Your task to perform on an android device: change the clock display to analog Image 0: 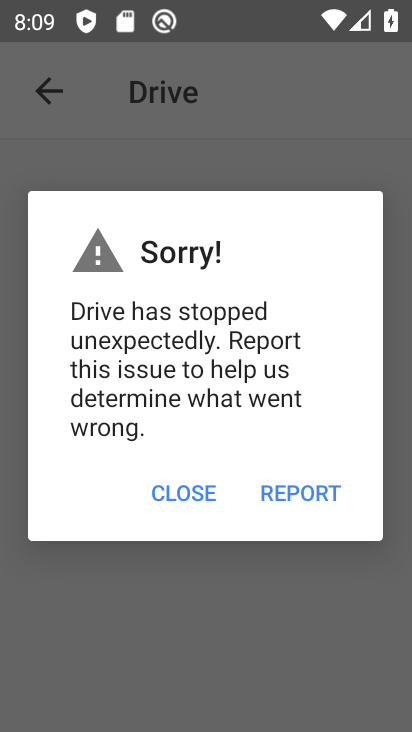
Step 0: press home button
Your task to perform on an android device: change the clock display to analog Image 1: 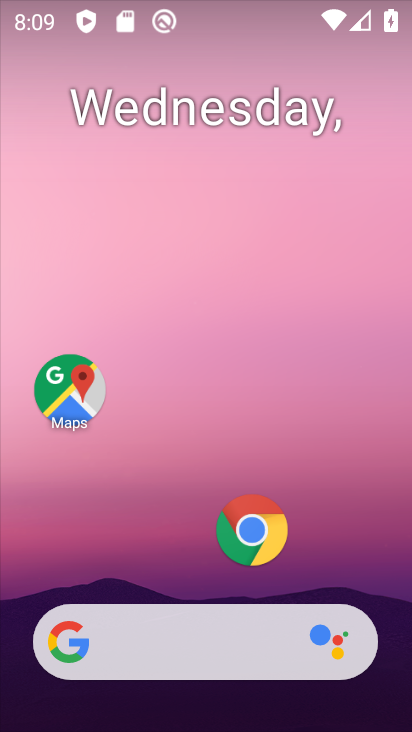
Step 1: drag from (161, 577) to (262, 53)
Your task to perform on an android device: change the clock display to analog Image 2: 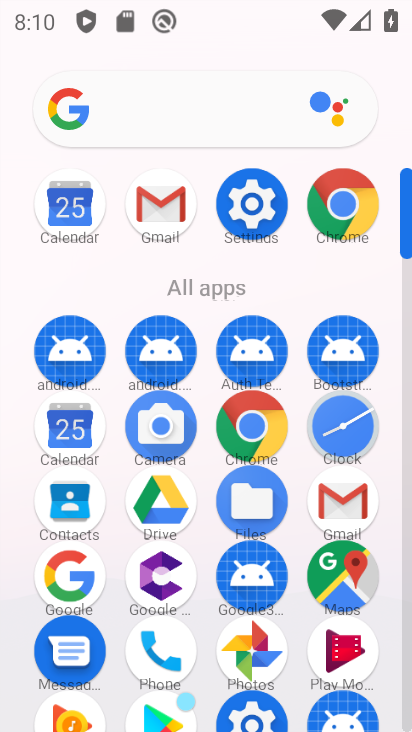
Step 2: click (333, 432)
Your task to perform on an android device: change the clock display to analog Image 3: 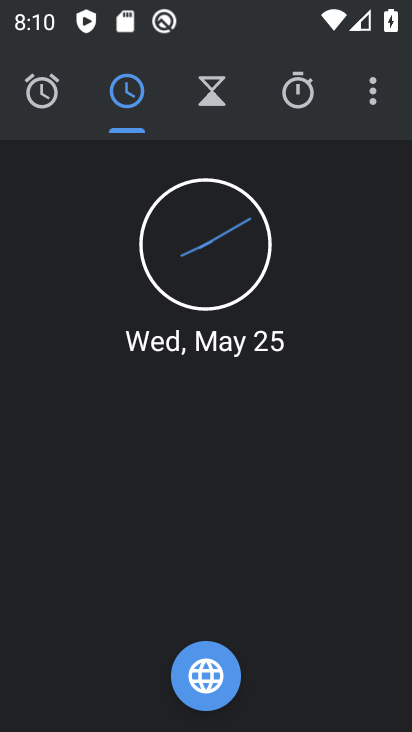
Step 3: click (371, 89)
Your task to perform on an android device: change the clock display to analog Image 4: 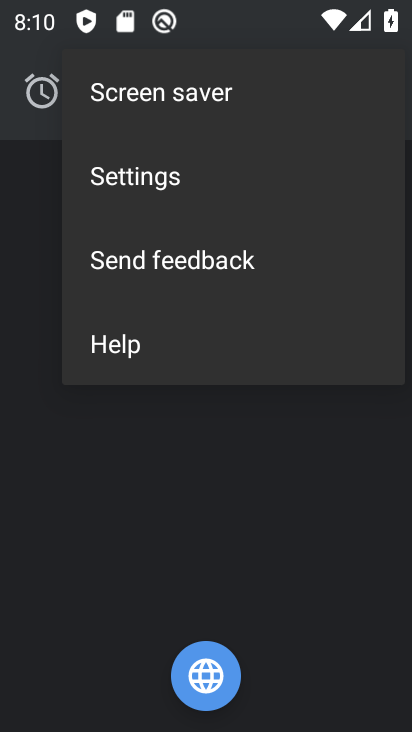
Step 4: click (165, 169)
Your task to perform on an android device: change the clock display to analog Image 5: 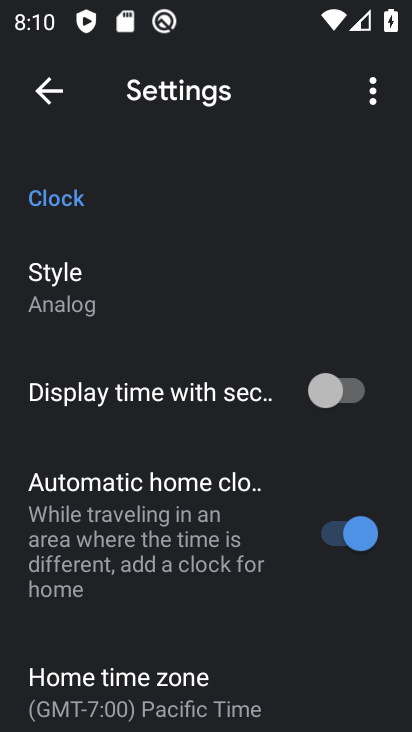
Step 5: task complete